Your task to perform on an android device: delete browsing data in the chrome app Image 0: 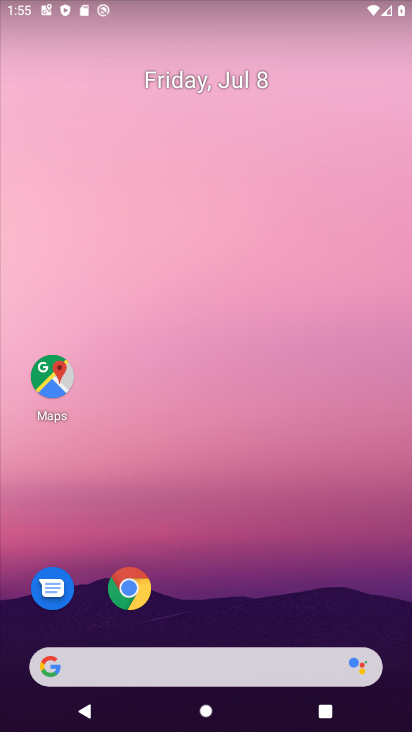
Step 0: press home button
Your task to perform on an android device: delete browsing data in the chrome app Image 1: 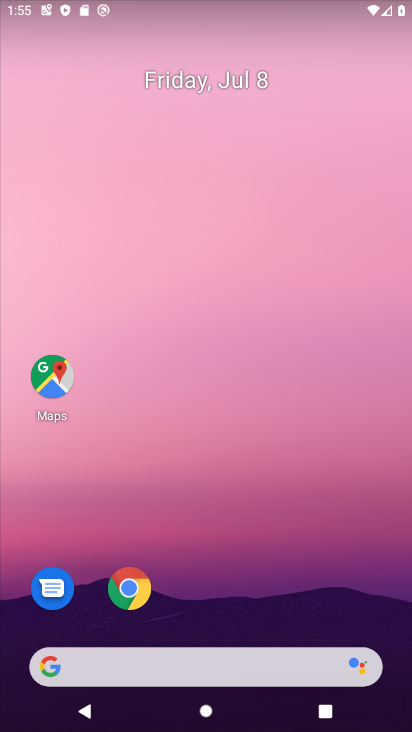
Step 1: drag from (209, 518) to (156, 150)
Your task to perform on an android device: delete browsing data in the chrome app Image 2: 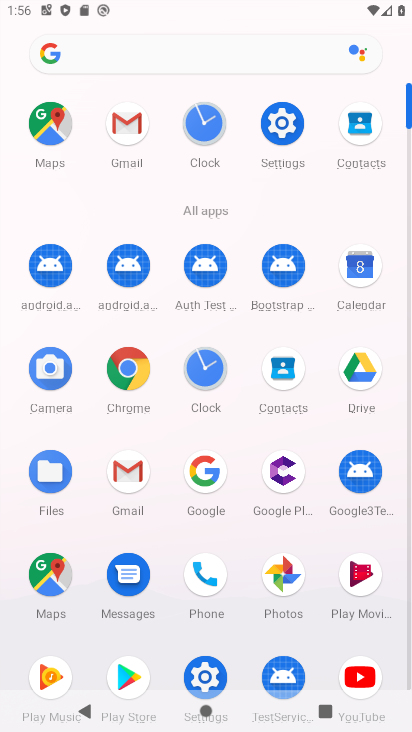
Step 2: click (135, 379)
Your task to perform on an android device: delete browsing data in the chrome app Image 3: 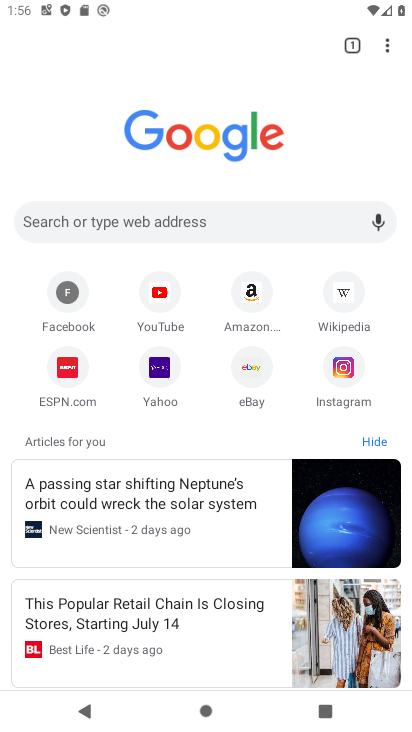
Step 3: drag from (386, 41) to (220, 379)
Your task to perform on an android device: delete browsing data in the chrome app Image 4: 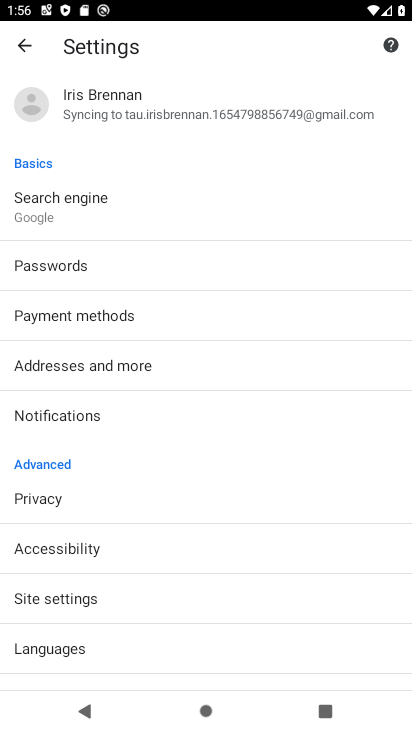
Step 4: click (42, 500)
Your task to perform on an android device: delete browsing data in the chrome app Image 5: 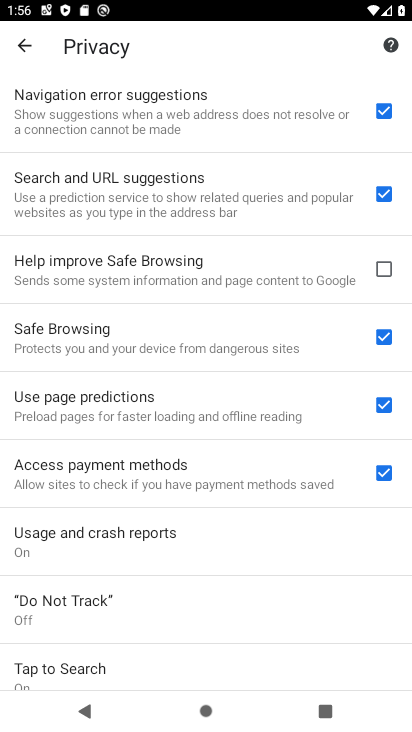
Step 5: drag from (292, 637) to (301, 38)
Your task to perform on an android device: delete browsing data in the chrome app Image 6: 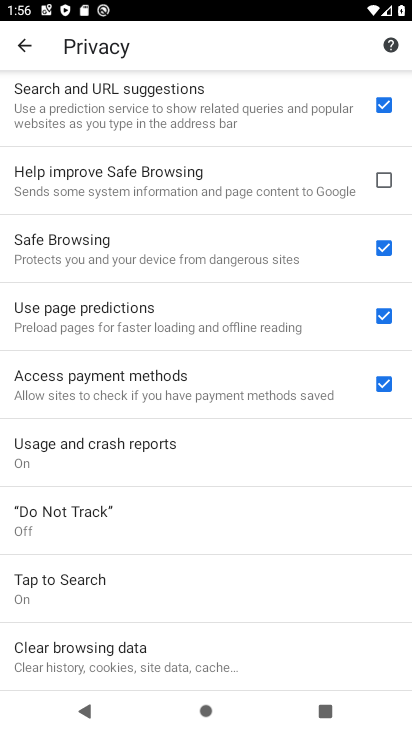
Step 6: click (78, 644)
Your task to perform on an android device: delete browsing data in the chrome app Image 7: 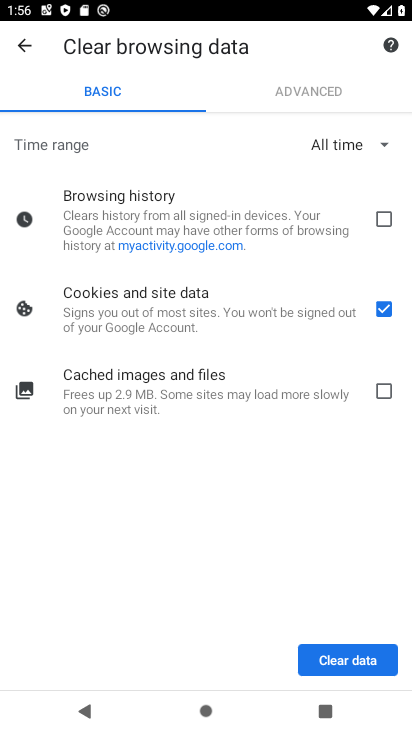
Step 7: click (387, 223)
Your task to perform on an android device: delete browsing data in the chrome app Image 8: 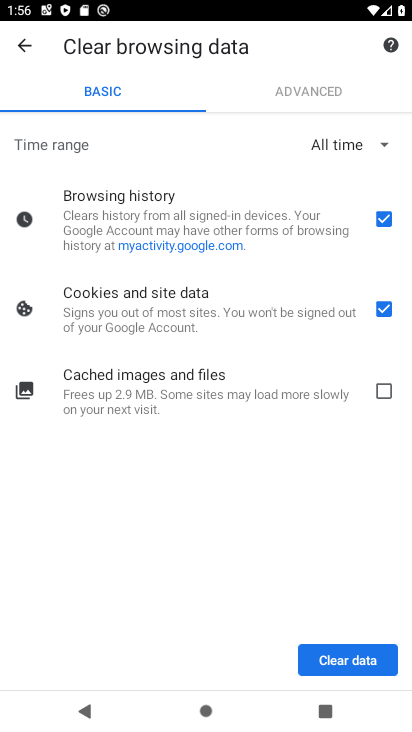
Step 8: click (379, 392)
Your task to perform on an android device: delete browsing data in the chrome app Image 9: 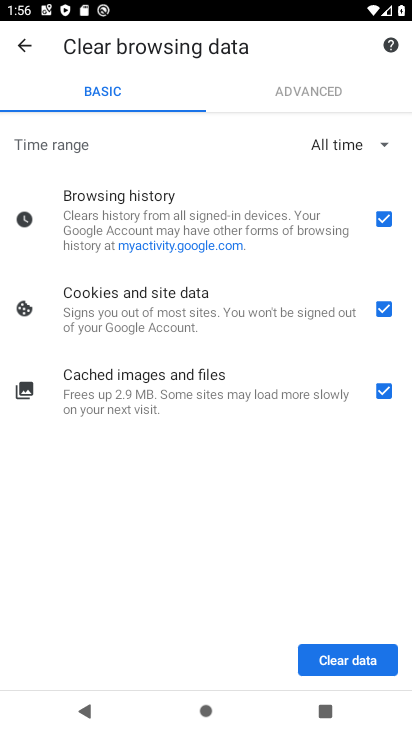
Step 9: click (341, 667)
Your task to perform on an android device: delete browsing data in the chrome app Image 10: 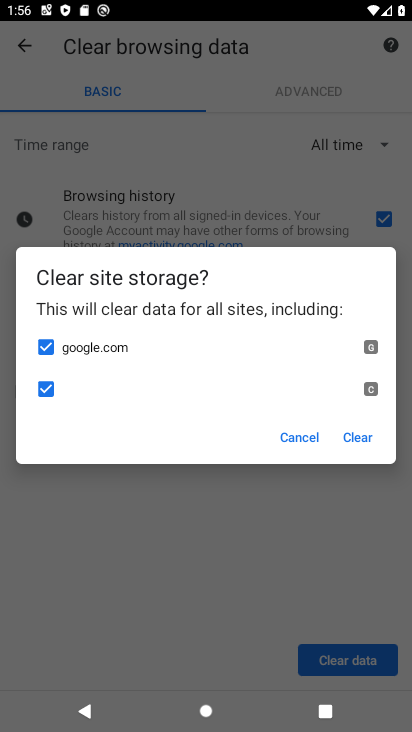
Step 10: click (364, 440)
Your task to perform on an android device: delete browsing data in the chrome app Image 11: 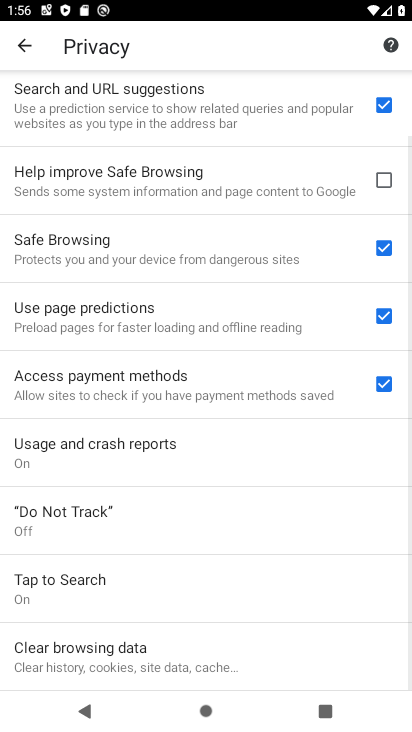
Step 11: task complete